Your task to perform on an android device: change the upload size in google photos Image 0: 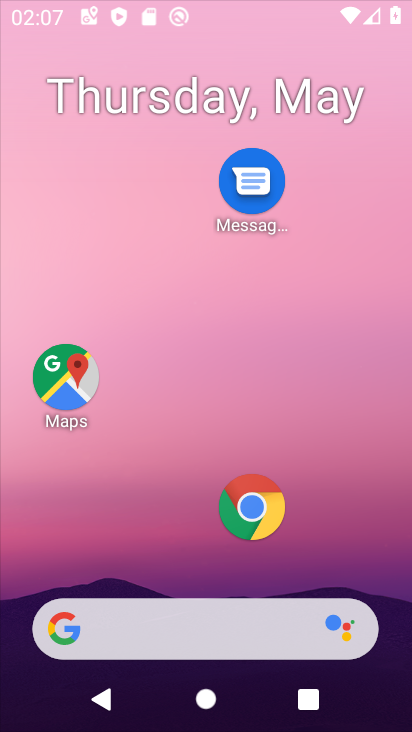
Step 0: click (251, 5)
Your task to perform on an android device: change the upload size in google photos Image 1: 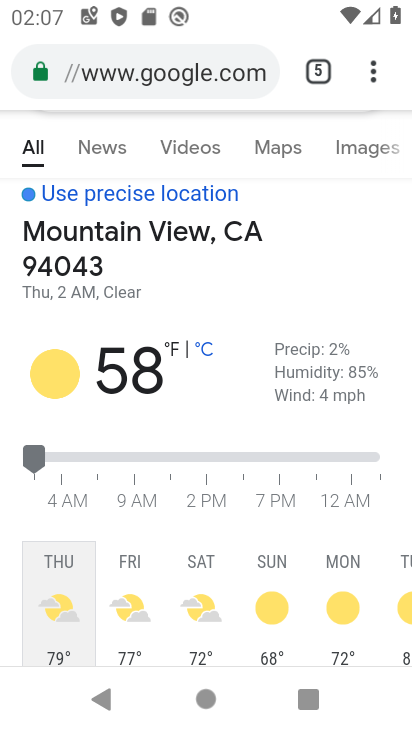
Step 1: press home button
Your task to perform on an android device: change the upload size in google photos Image 2: 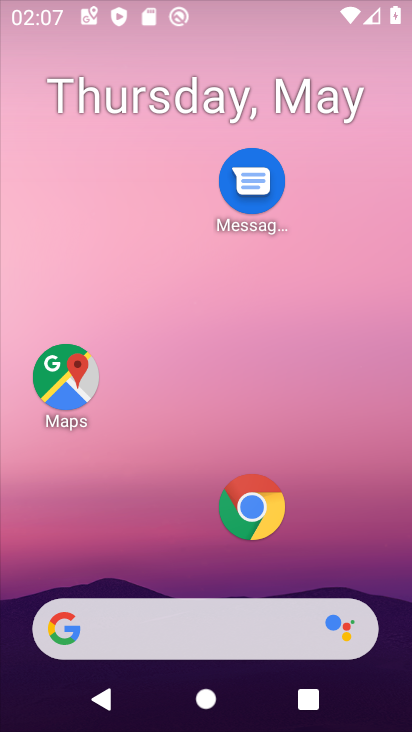
Step 2: drag from (328, 630) to (318, 39)
Your task to perform on an android device: change the upload size in google photos Image 3: 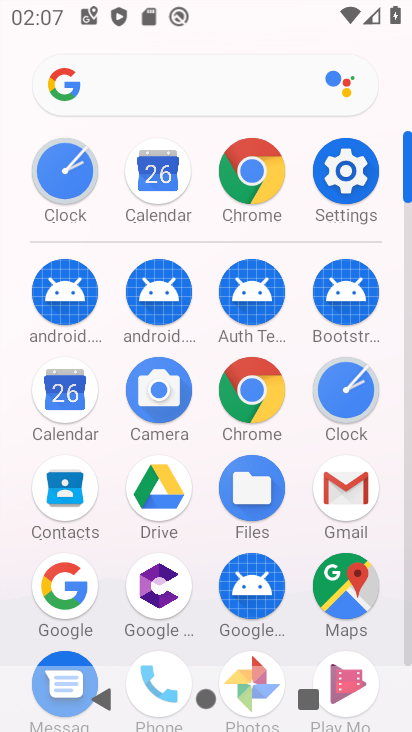
Step 3: drag from (302, 641) to (297, 333)
Your task to perform on an android device: change the upload size in google photos Image 4: 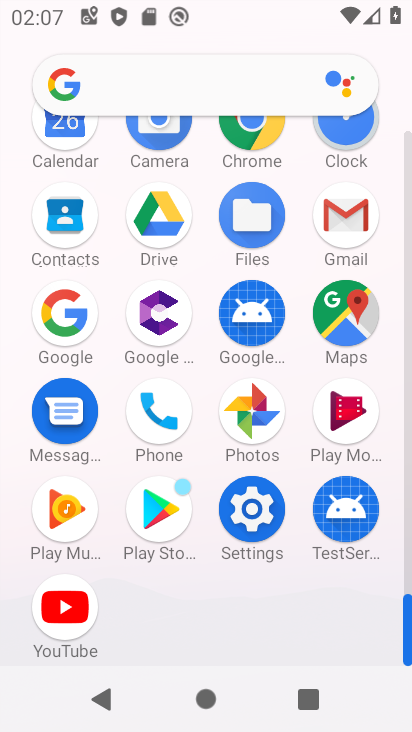
Step 4: click (253, 430)
Your task to perform on an android device: change the upload size in google photos Image 5: 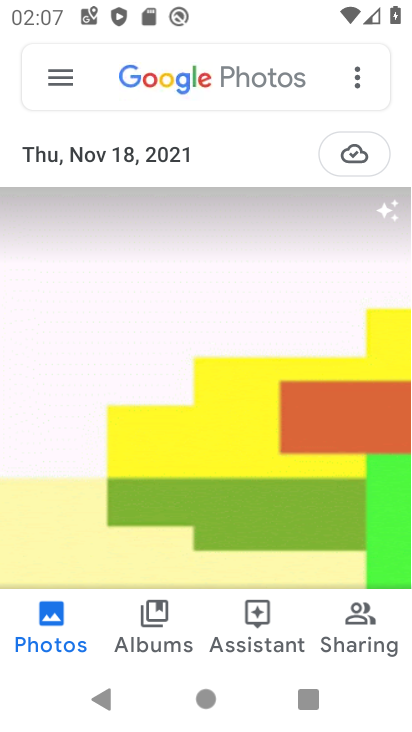
Step 5: click (54, 73)
Your task to perform on an android device: change the upload size in google photos Image 6: 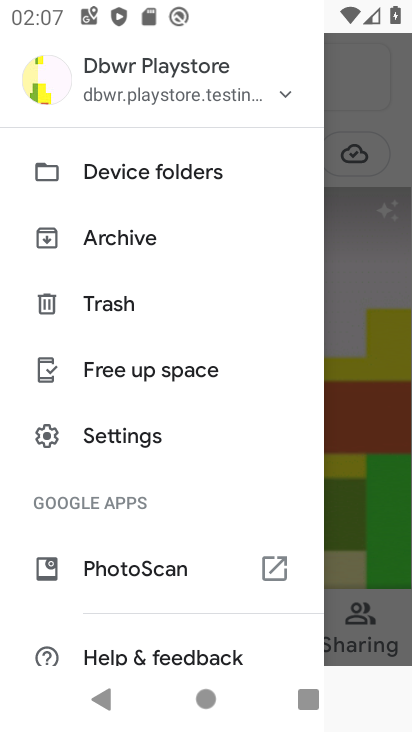
Step 6: drag from (203, 609) to (171, 98)
Your task to perform on an android device: change the upload size in google photos Image 7: 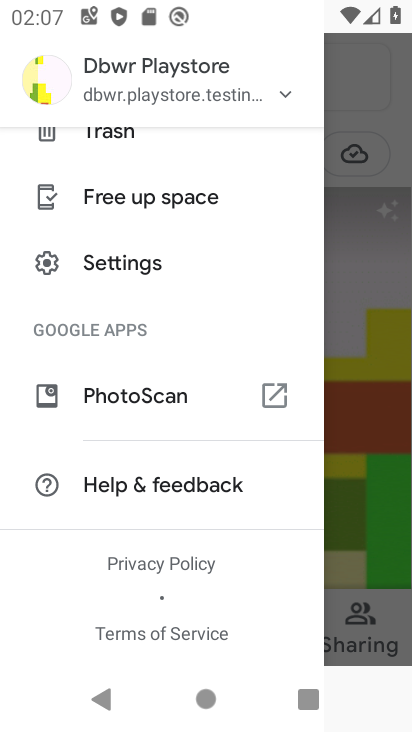
Step 7: click (134, 263)
Your task to perform on an android device: change the upload size in google photos Image 8: 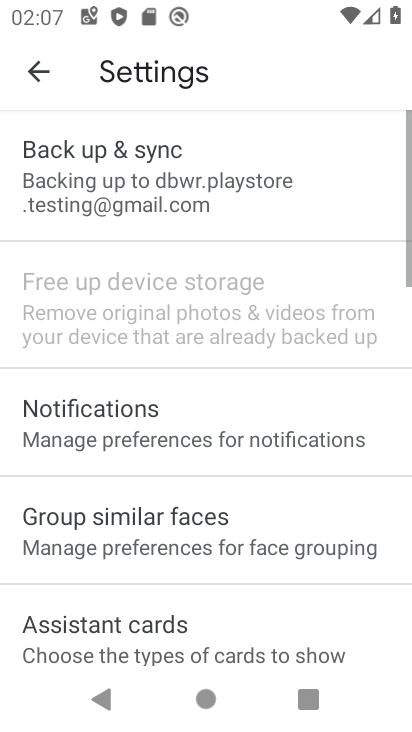
Step 8: click (116, 184)
Your task to perform on an android device: change the upload size in google photos Image 9: 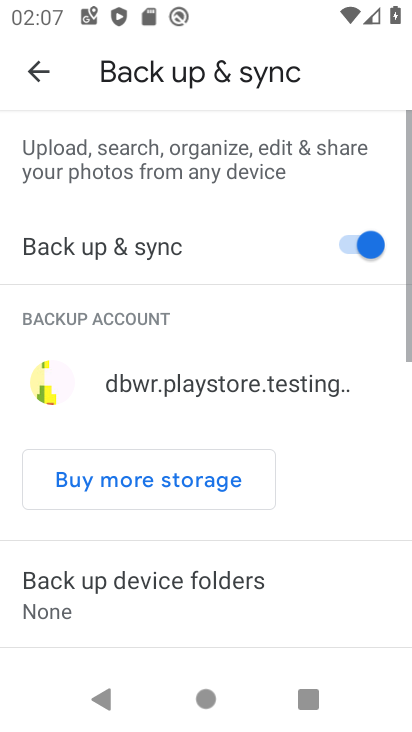
Step 9: task complete